Your task to perform on an android device: toggle airplane mode Image 0: 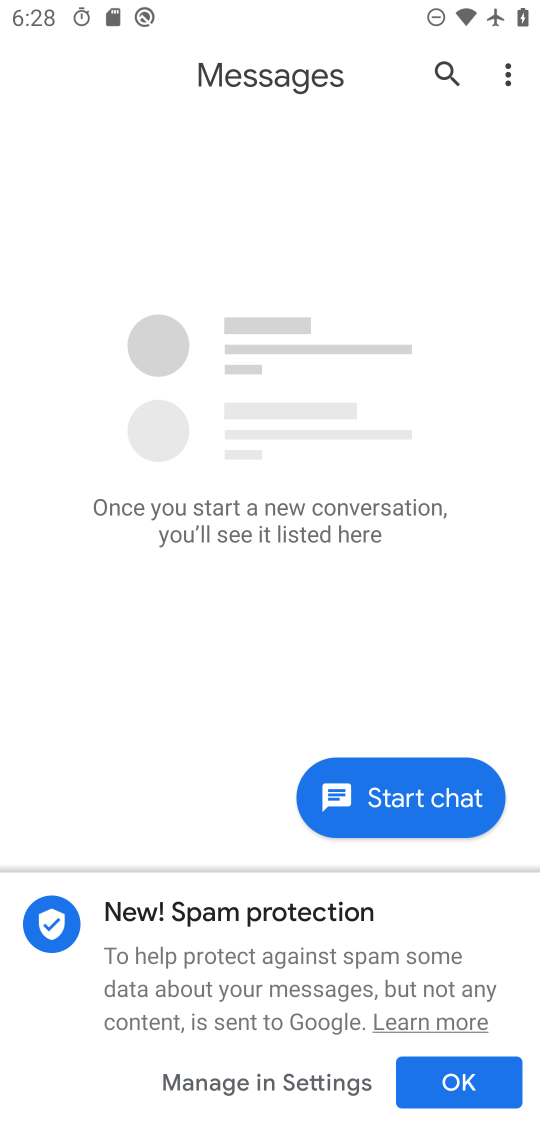
Step 0: press home button
Your task to perform on an android device: toggle airplane mode Image 1: 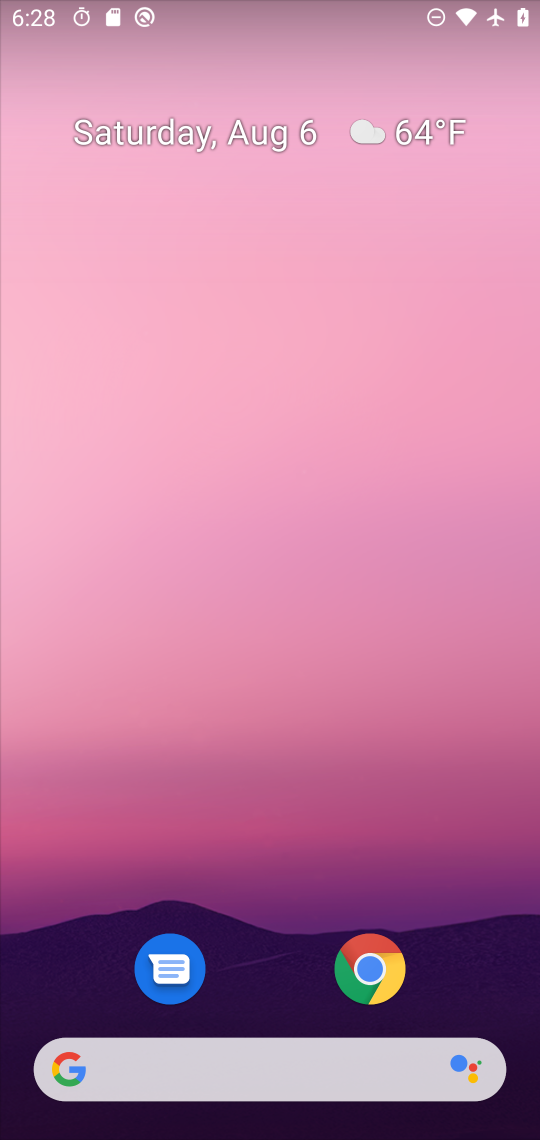
Step 1: press home button
Your task to perform on an android device: toggle airplane mode Image 2: 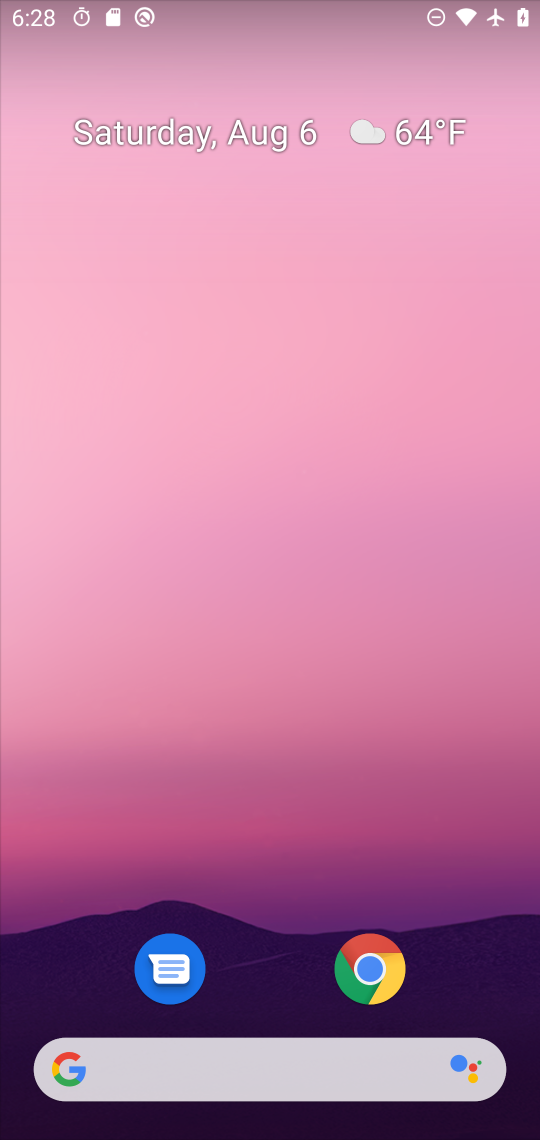
Step 2: drag from (283, 21) to (276, 863)
Your task to perform on an android device: toggle airplane mode Image 3: 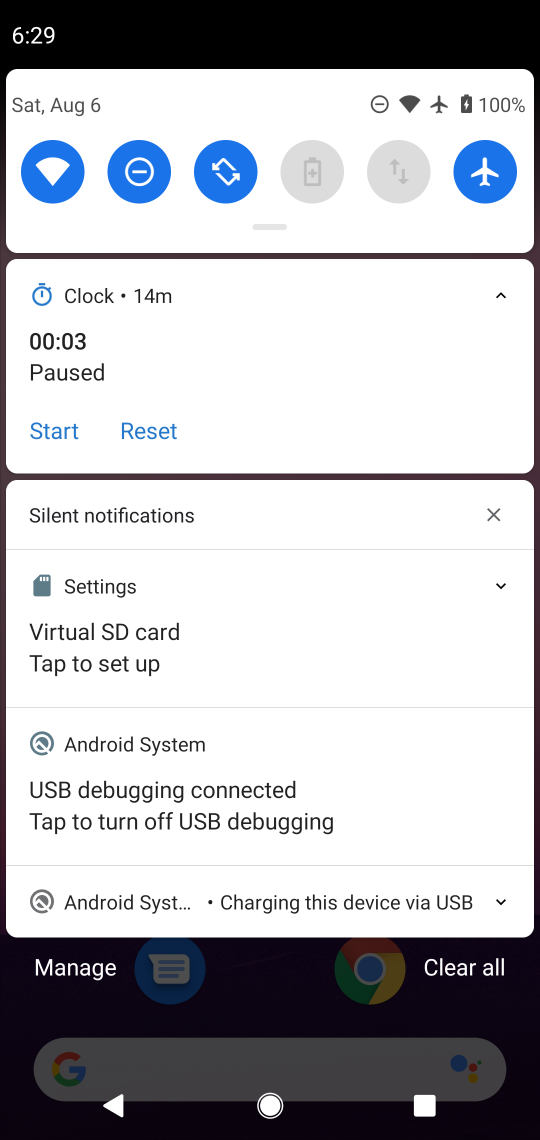
Step 3: click (481, 168)
Your task to perform on an android device: toggle airplane mode Image 4: 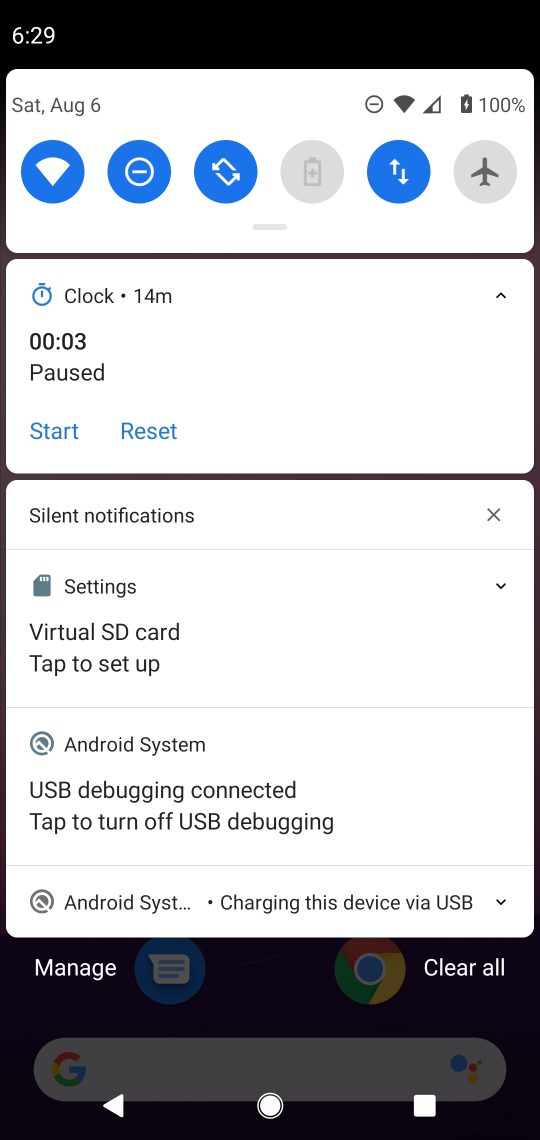
Step 4: task complete